Your task to perform on an android device: open app "Venmo" Image 0: 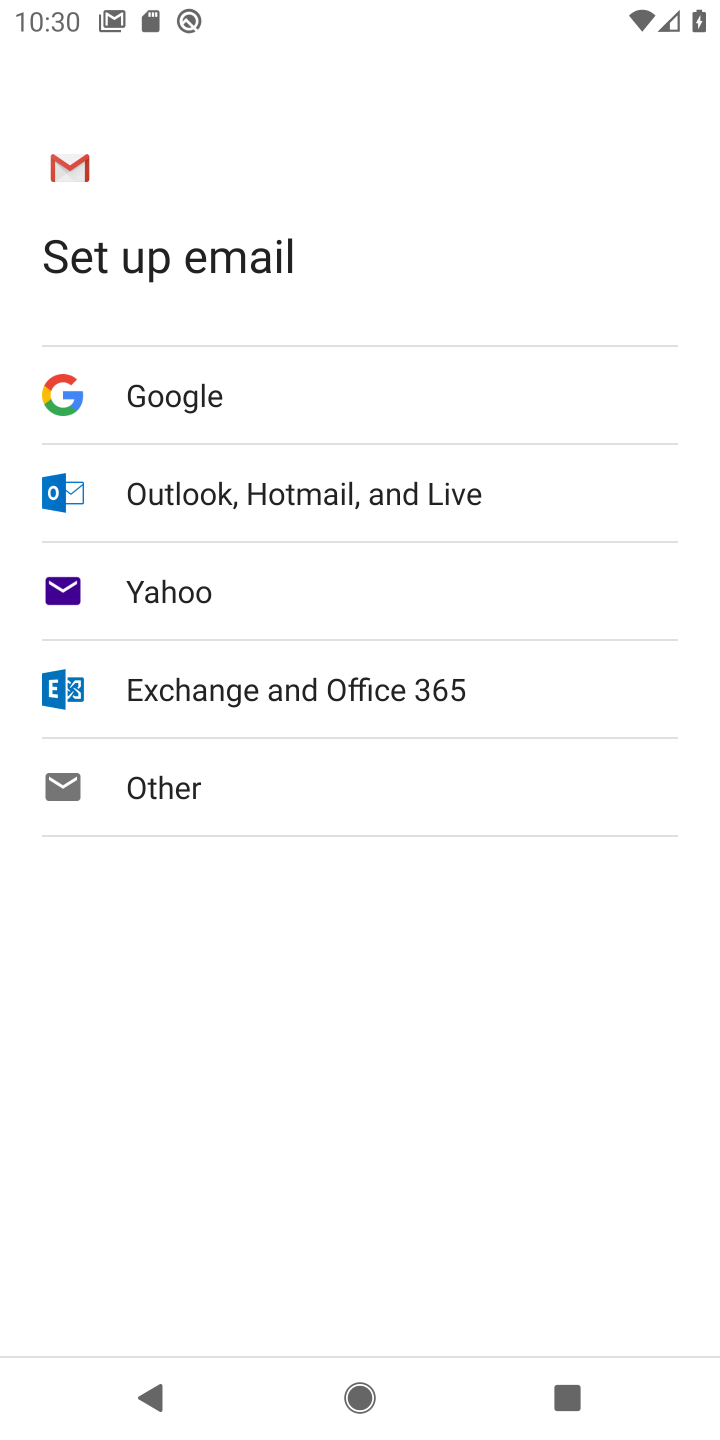
Step 0: press home button
Your task to perform on an android device: open app "Venmo" Image 1: 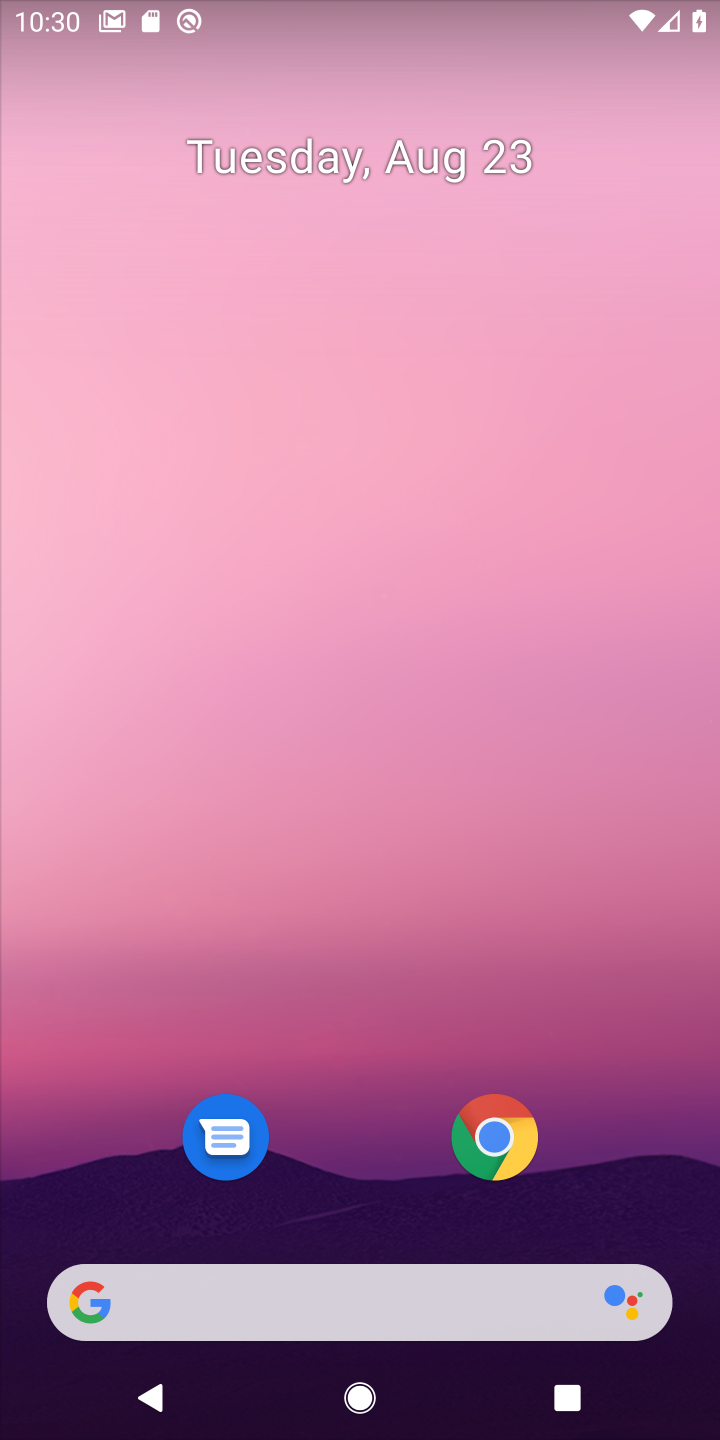
Step 1: drag from (277, 1199) to (357, 303)
Your task to perform on an android device: open app "Venmo" Image 2: 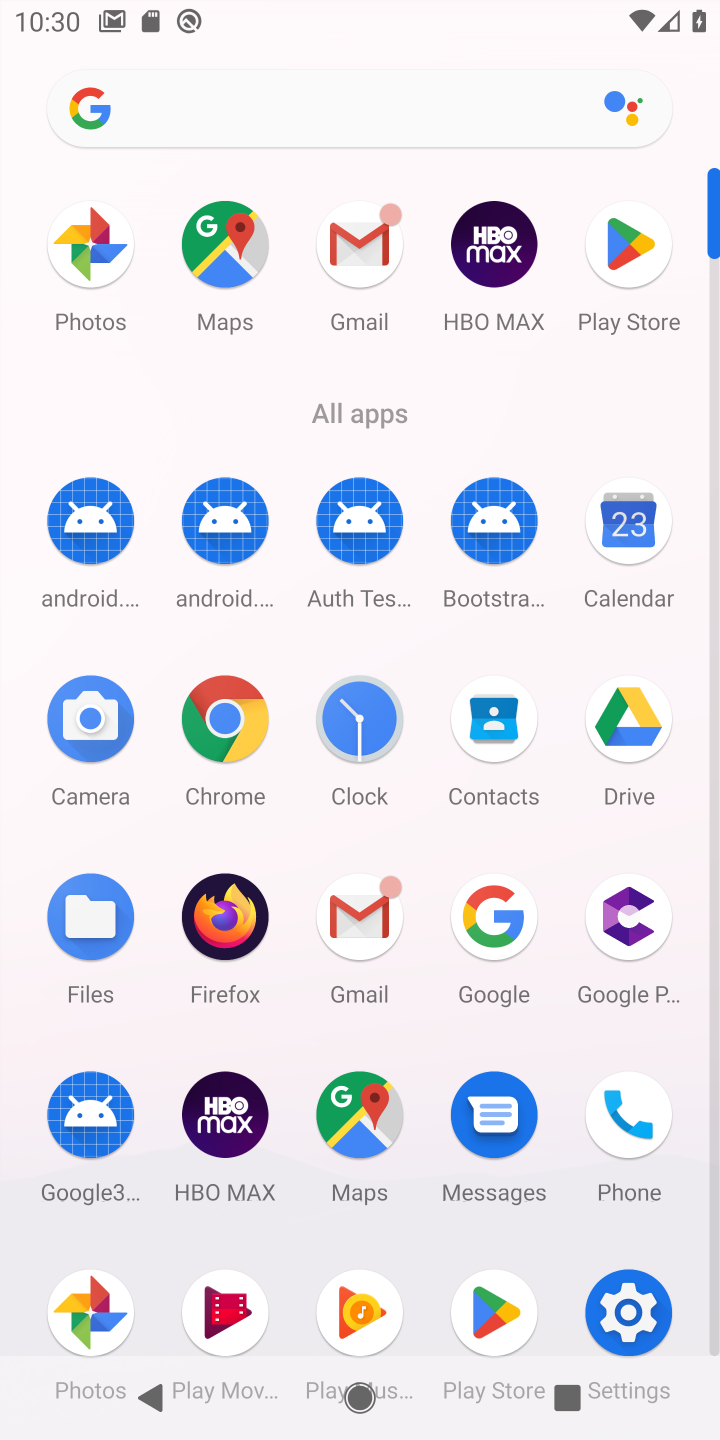
Step 2: click (643, 295)
Your task to perform on an android device: open app "Venmo" Image 3: 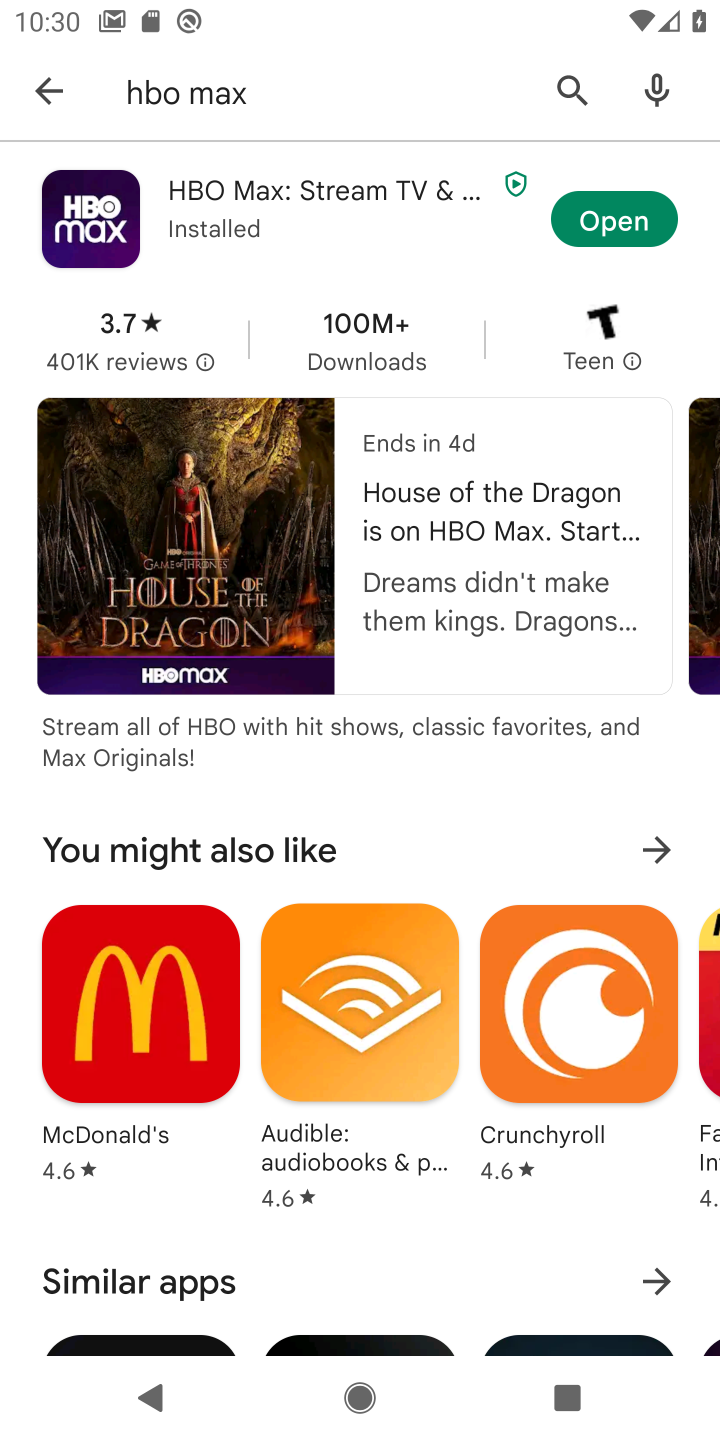
Step 3: click (248, 101)
Your task to perform on an android device: open app "Venmo" Image 4: 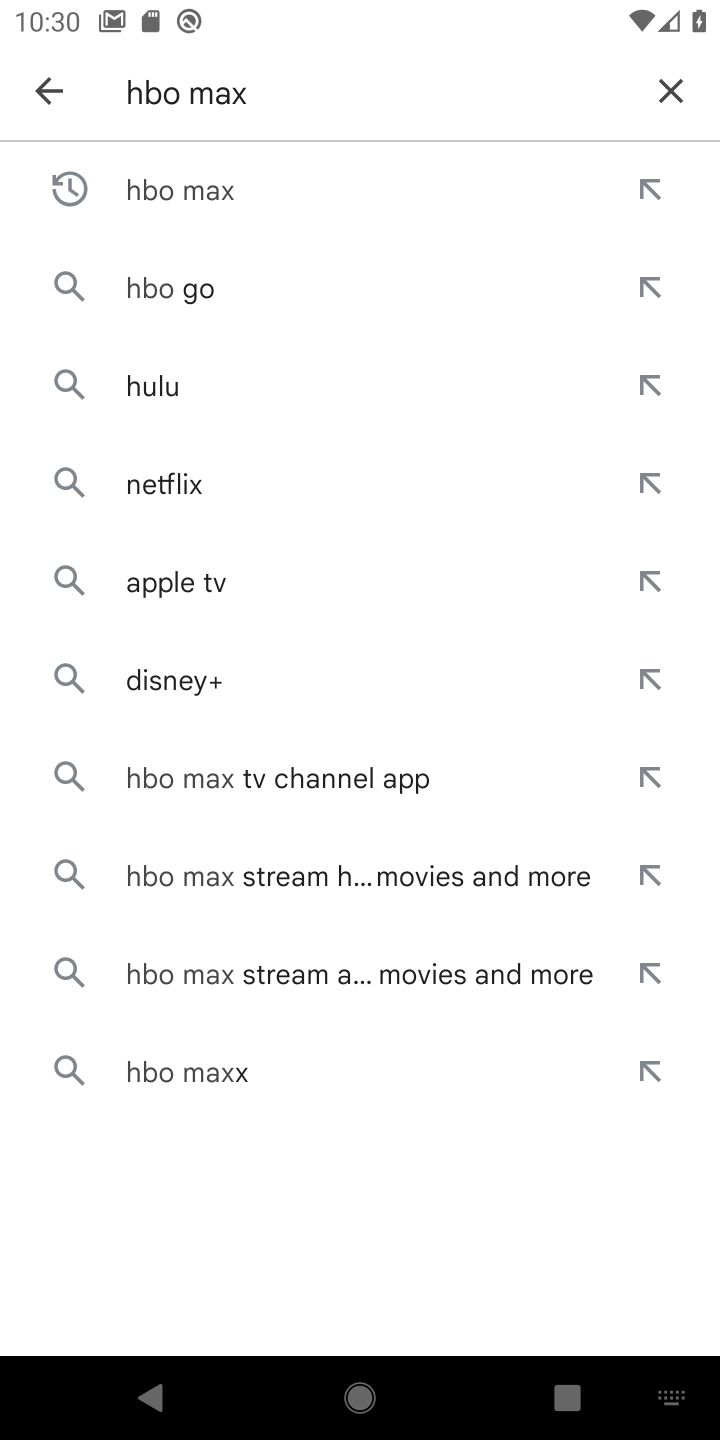
Step 4: click (659, 89)
Your task to perform on an android device: open app "Venmo" Image 5: 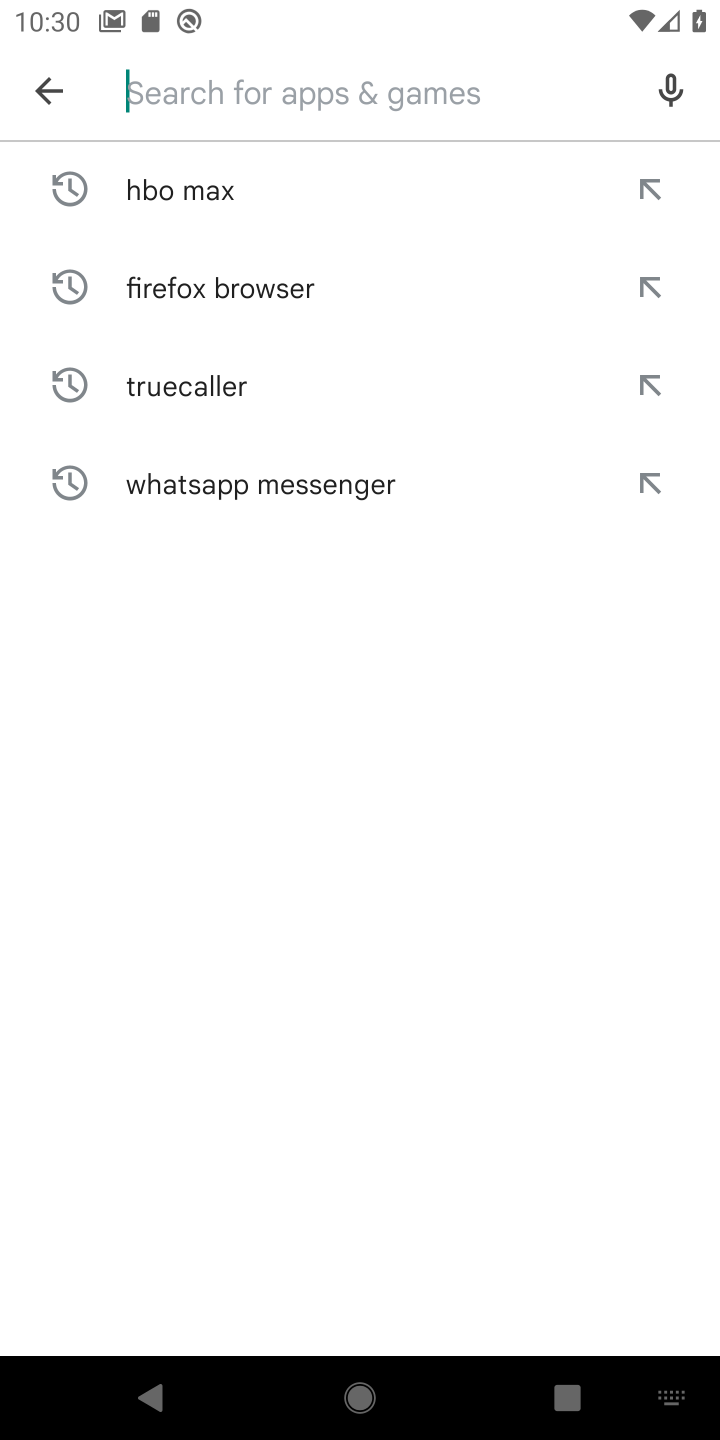
Step 5: type "Venmo"
Your task to perform on an android device: open app "Venmo" Image 6: 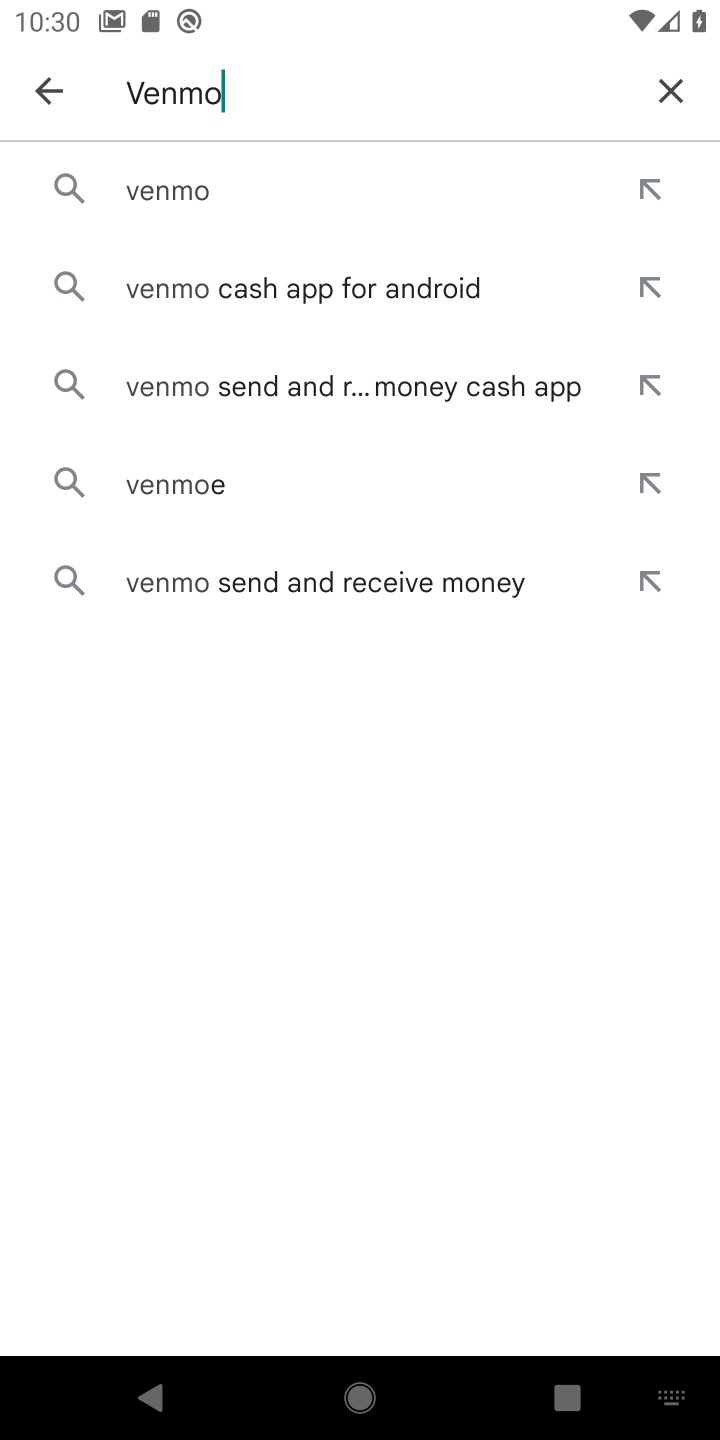
Step 6: click (226, 178)
Your task to perform on an android device: open app "Venmo" Image 7: 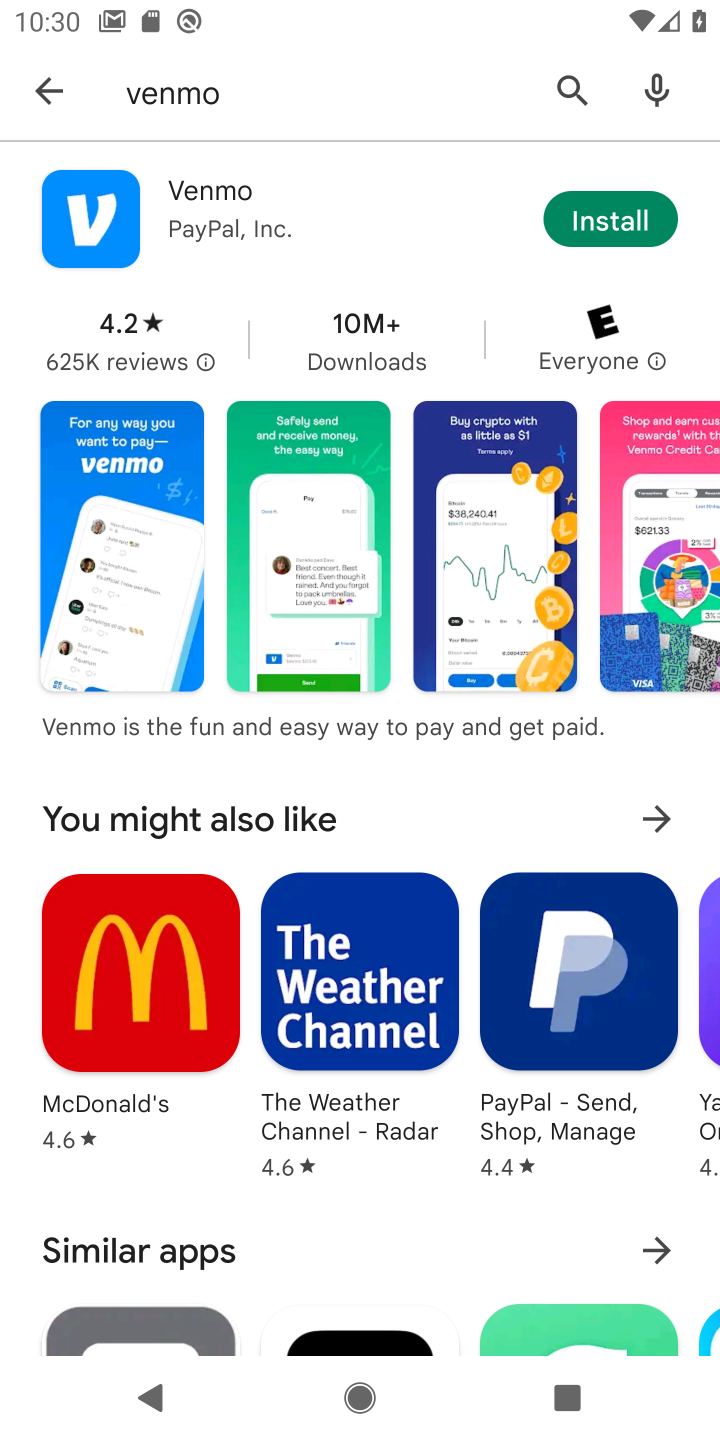
Step 7: task complete